Your task to perform on an android device: toggle improve location accuracy Image 0: 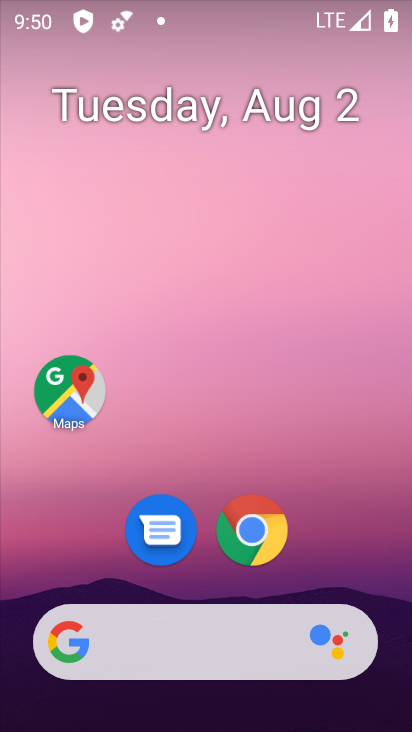
Step 0: drag from (351, 558) to (357, 85)
Your task to perform on an android device: toggle improve location accuracy Image 1: 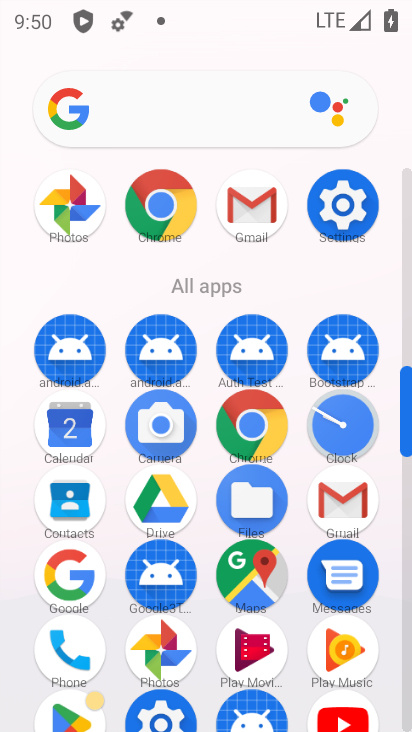
Step 1: drag from (198, 560) to (191, 107)
Your task to perform on an android device: toggle improve location accuracy Image 2: 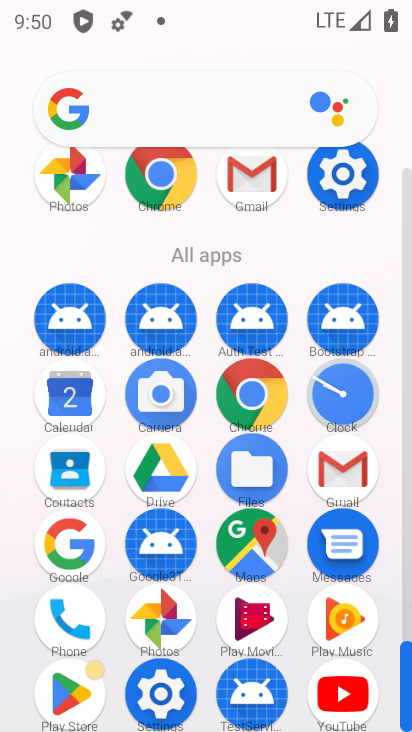
Step 2: click (165, 691)
Your task to perform on an android device: toggle improve location accuracy Image 3: 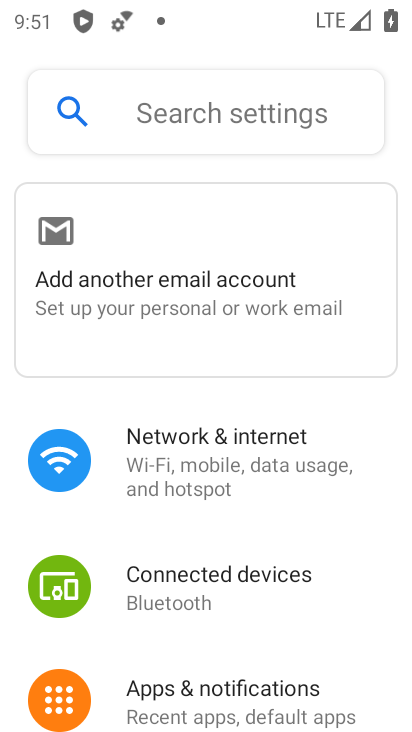
Step 3: drag from (310, 642) to (288, 89)
Your task to perform on an android device: toggle improve location accuracy Image 4: 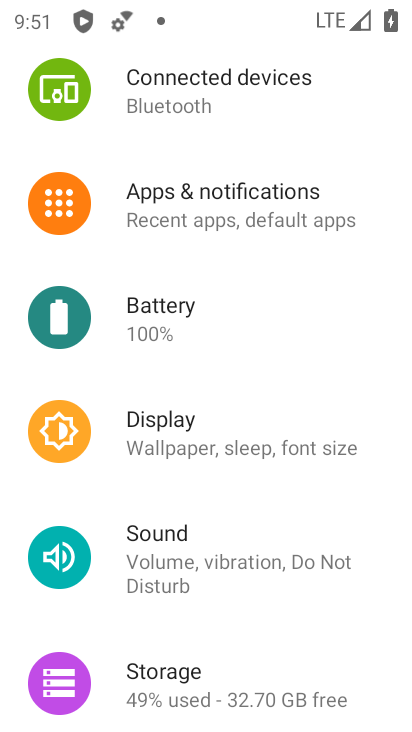
Step 4: drag from (278, 611) to (266, 221)
Your task to perform on an android device: toggle improve location accuracy Image 5: 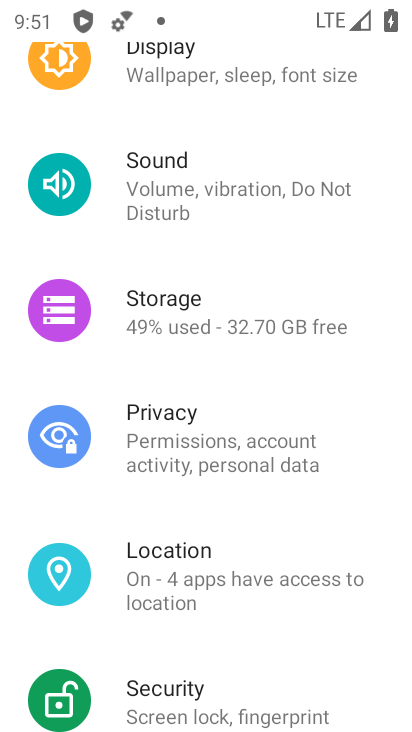
Step 5: drag from (315, 656) to (293, 351)
Your task to perform on an android device: toggle improve location accuracy Image 6: 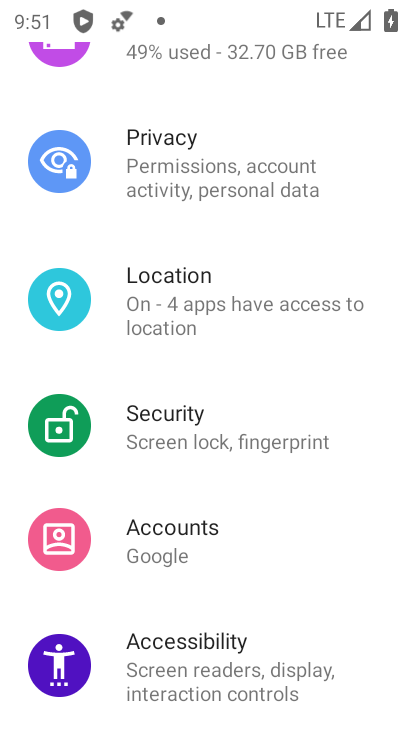
Step 6: drag from (287, 618) to (289, 142)
Your task to perform on an android device: toggle improve location accuracy Image 7: 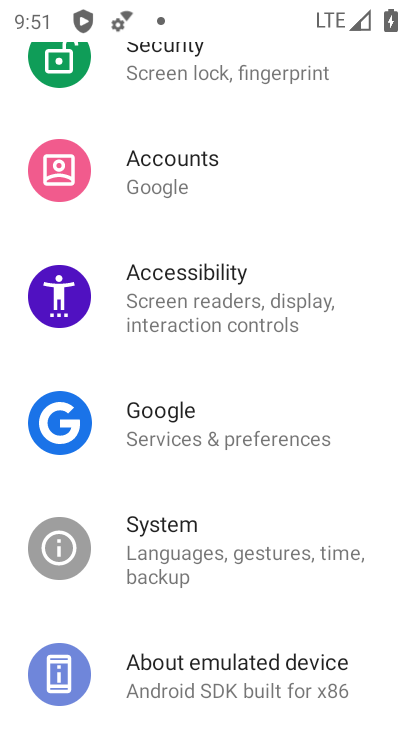
Step 7: drag from (258, 111) to (254, 556)
Your task to perform on an android device: toggle improve location accuracy Image 8: 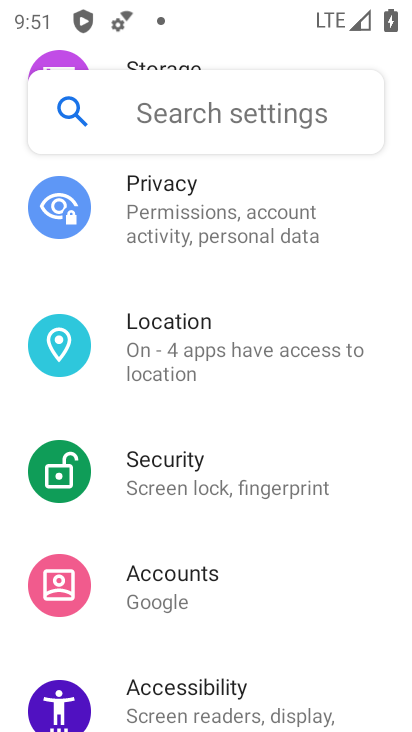
Step 8: click (184, 341)
Your task to perform on an android device: toggle improve location accuracy Image 9: 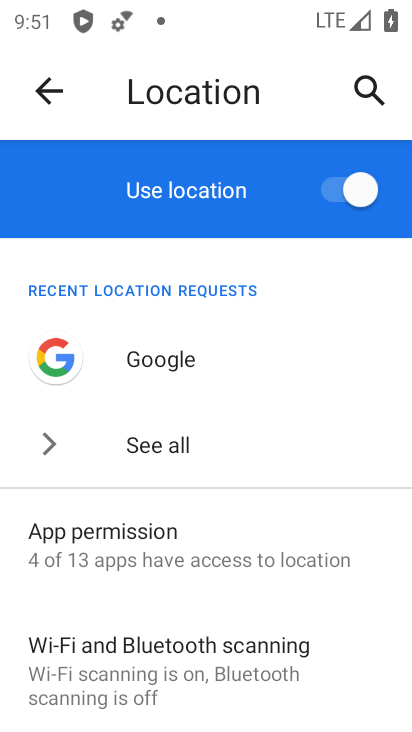
Step 9: click (245, 141)
Your task to perform on an android device: toggle improve location accuracy Image 10: 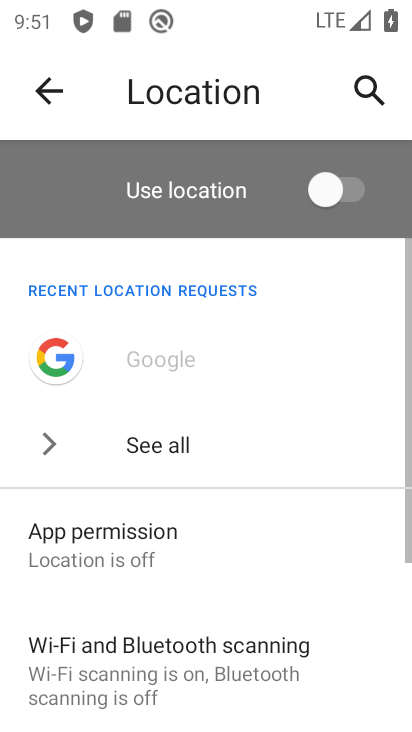
Step 10: drag from (255, 573) to (262, 145)
Your task to perform on an android device: toggle improve location accuracy Image 11: 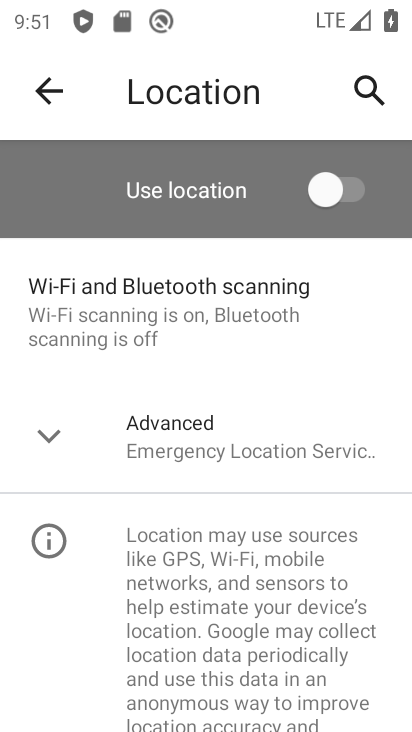
Step 11: click (346, 189)
Your task to perform on an android device: toggle improve location accuracy Image 12: 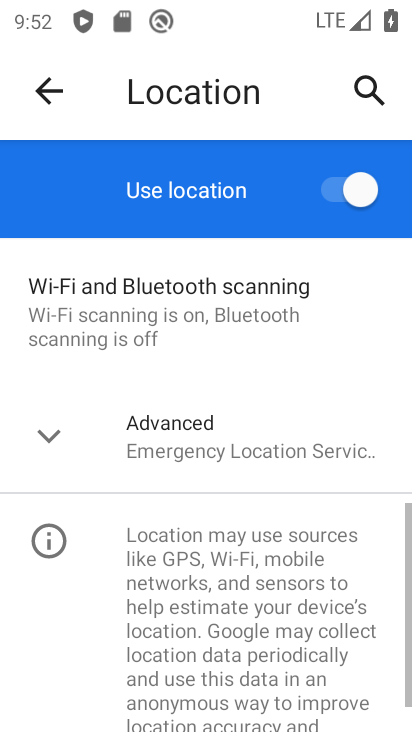
Step 12: click (226, 454)
Your task to perform on an android device: toggle improve location accuracy Image 13: 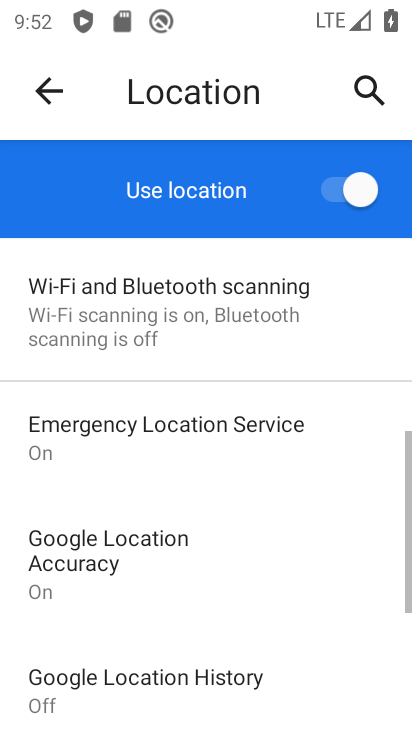
Step 13: drag from (233, 593) to (221, 282)
Your task to perform on an android device: toggle improve location accuracy Image 14: 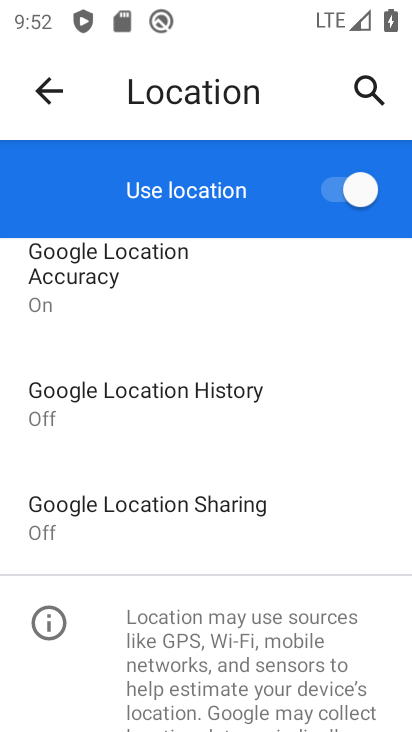
Step 14: click (79, 275)
Your task to perform on an android device: toggle improve location accuracy Image 15: 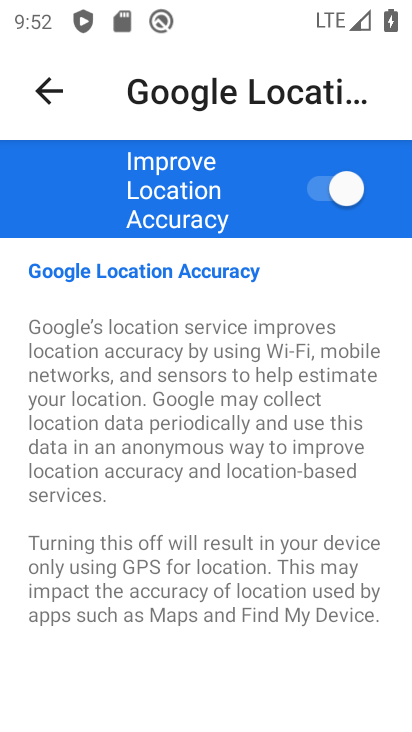
Step 15: click (262, 185)
Your task to perform on an android device: toggle improve location accuracy Image 16: 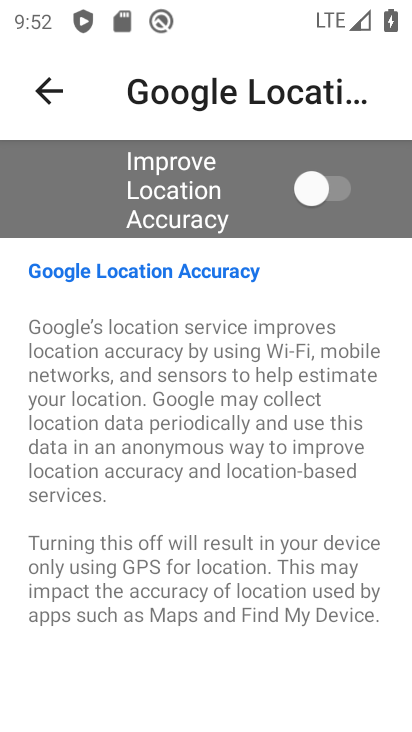
Step 16: task complete